Your task to perform on an android device: toggle translation in the chrome app Image 0: 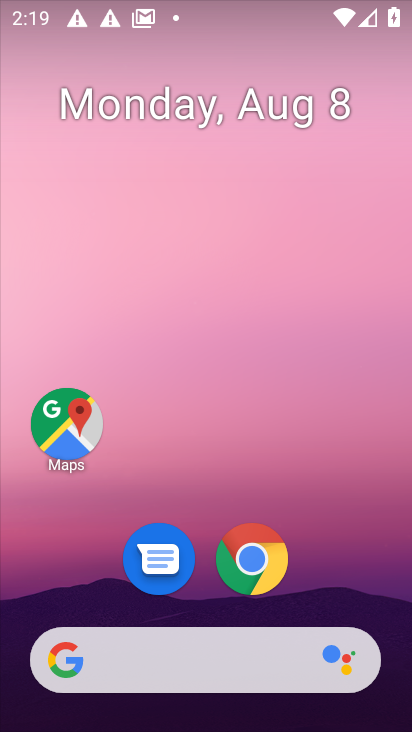
Step 0: click (253, 558)
Your task to perform on an android device: toggle translation in the chrome app Image 1: 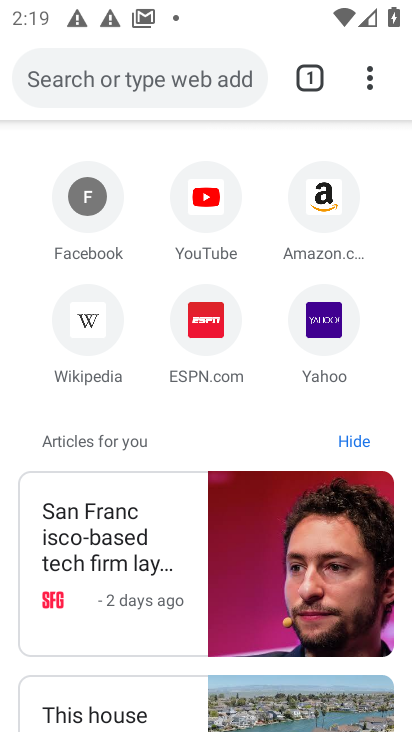
Step 1: click (369, 83)
Your task to perform on an android device: toggle translation in the chrome app Image 2: 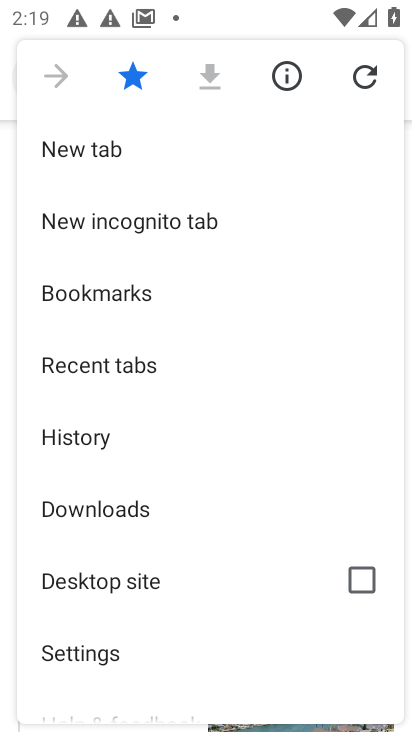
Step 2: drag from (163, 354) to (197, 288)
Your task to perform on an android device: toggle translation in the chrome app Image 3: 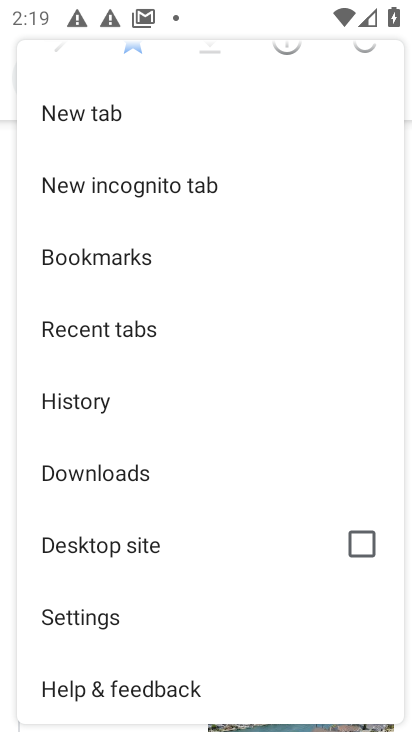
Step 3: drag from (166, 488) to (206, 414)
Your task to perform on an android device: toggle translation in the chrome app Image 4: 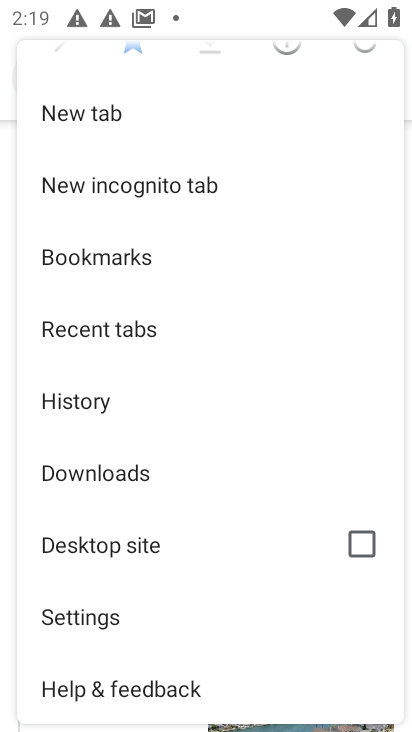
Step 4: click (96, 615)
Your task to perform on an android device: toggle translation in the chrome app Image 5: 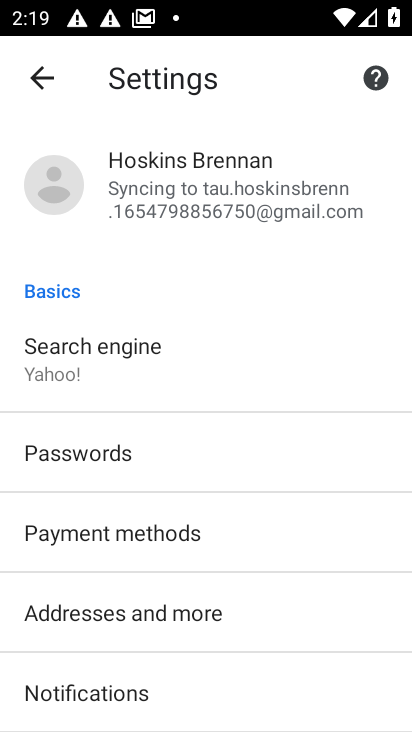
Step 5: drag from (101, 584) to (146, 486)
Your task to perform on an android device: toggle translation in the chrome app Image 6: 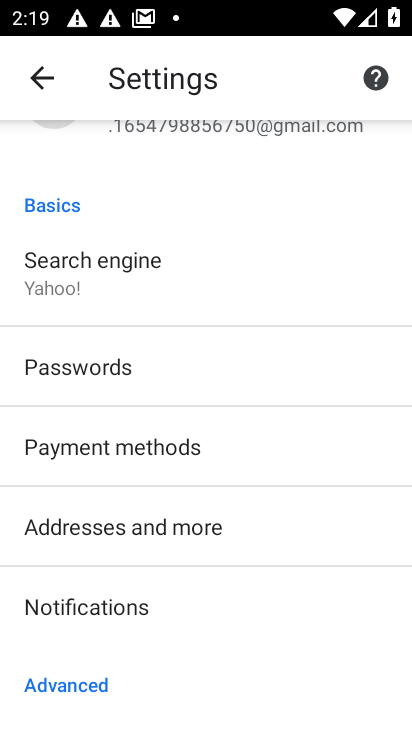
Step 6: drag from (171, 579) to (197, 530)
Your task to perform on an android device: toggle translation in the chrome app Image 7: 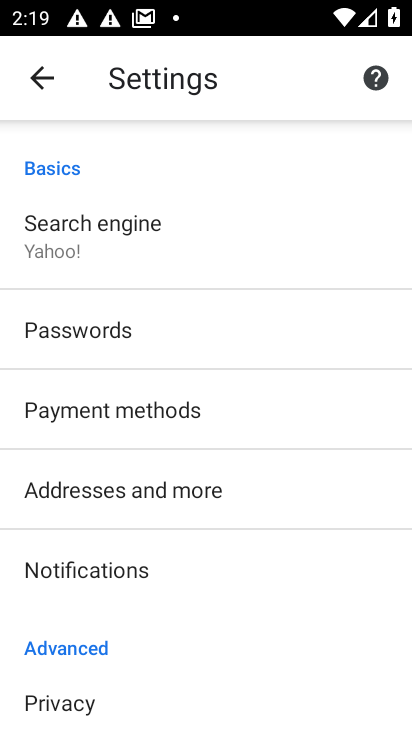
Step 7: drag from (154, 678) to (231, 566)
Your task to perform on an android device: toggle translation in the chrome app Image 8: 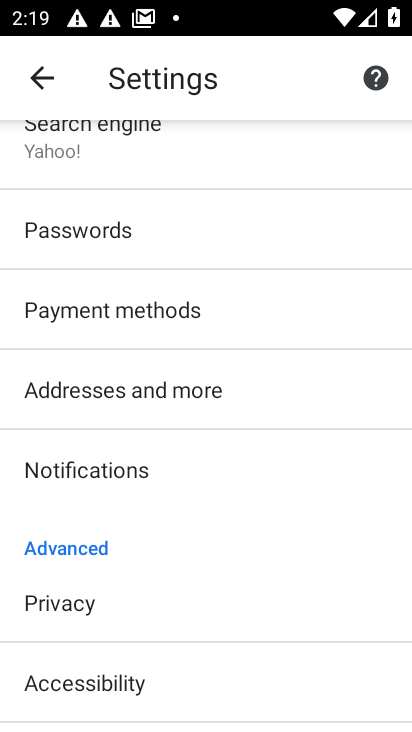
Step 8: drag from (172, 674) to (230, 572)
Your task to perform on an android device: toggle translation in the chrome app Image 9: 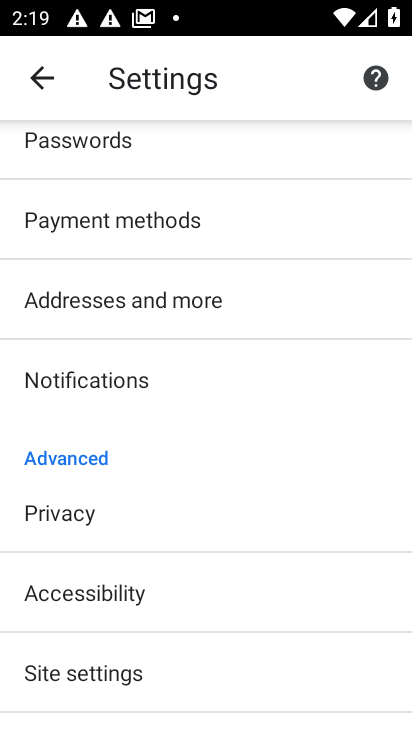
Step 9: drag from (165, 677) to (209, 570)
Your task to perform on an android device: toggle translation in the chrome app Image 10: 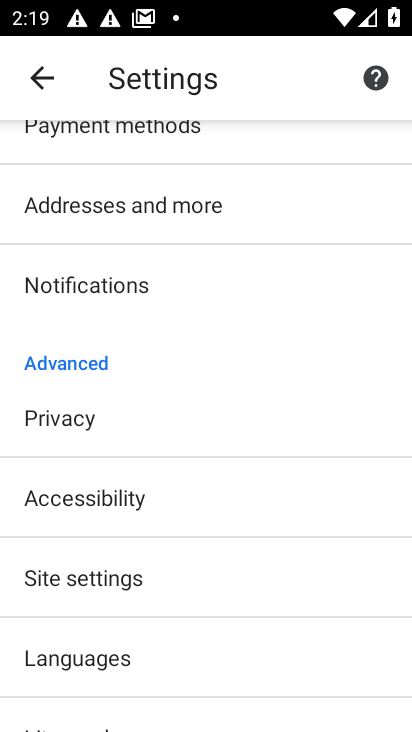
Step 10: click (113, 667)
Your task to perform on an android device: toggle translation in the chrome app Image 11: 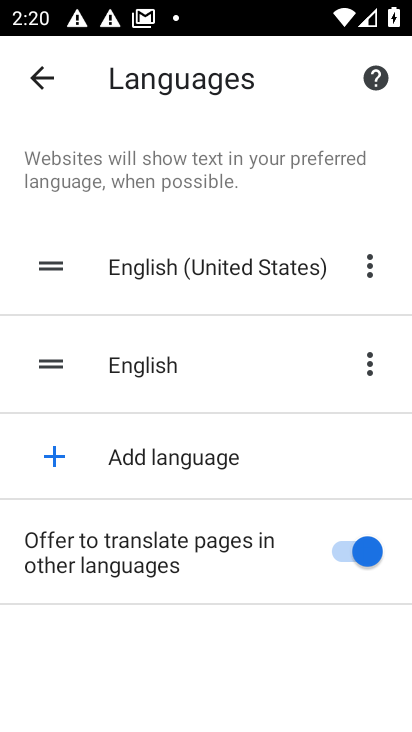
Step 11: click (340, 551)
Your task to perform on an android device: toggle translation in the chrome app Image 12: 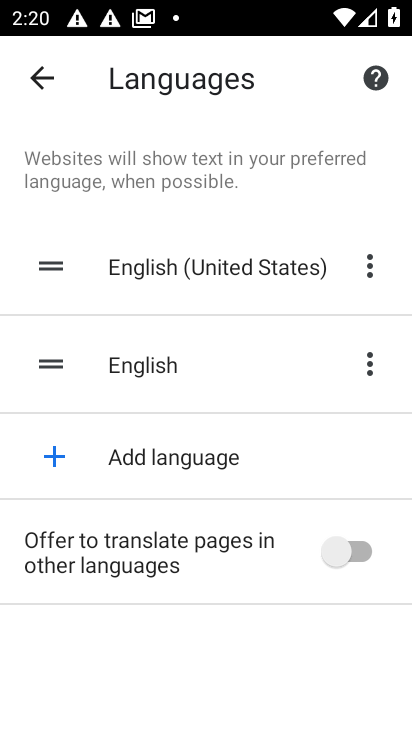
Step 12: task complete